Your task to perform on an android device: Open Google Chrome Image 0: 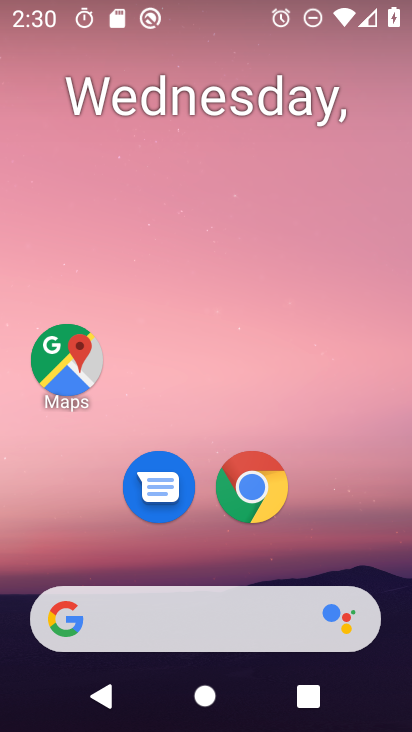
Step 0: click (255, 486)
Your task to perform on an android device: Open Google Chrome Image 1: 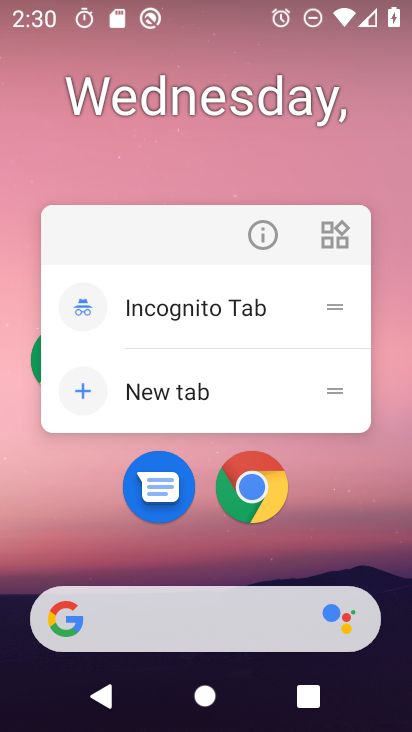
Step 1: click (254, 485)
Your task to perform on an android device: Open Google Chrome Image 2: 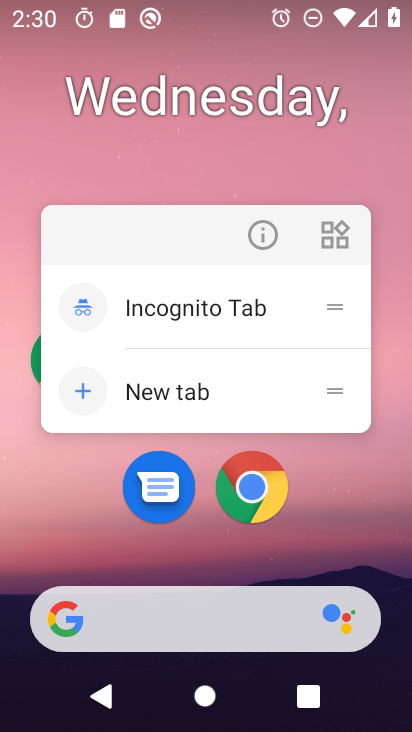
Step 2: click (254, 485)
Your task to perform on an android device: Open Google Chrome Image 3: 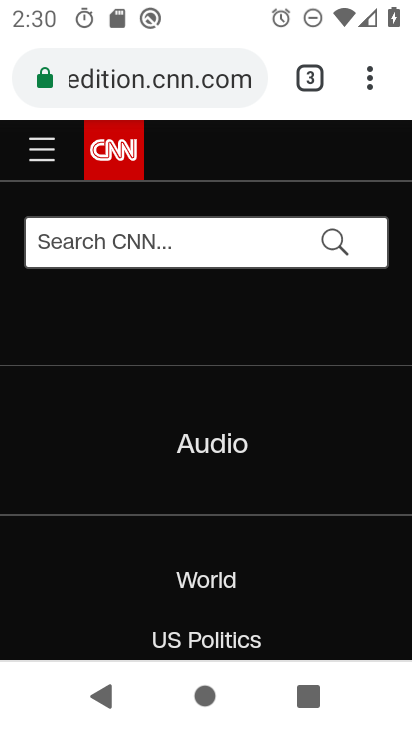
Step 3: task complete